Your task to perform on an android device: Is it going to rain tomorrow? Image 0: 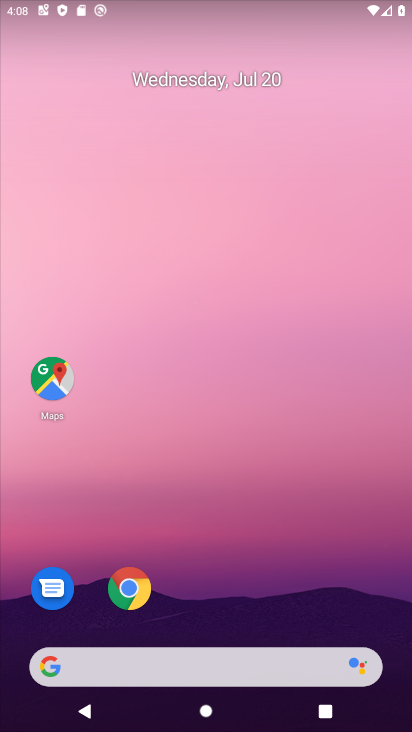
Step 0: drag from (204, 596) to (224, 14)
Your task to perform on an android device: Is it going to rain tomorrow? Image 1: 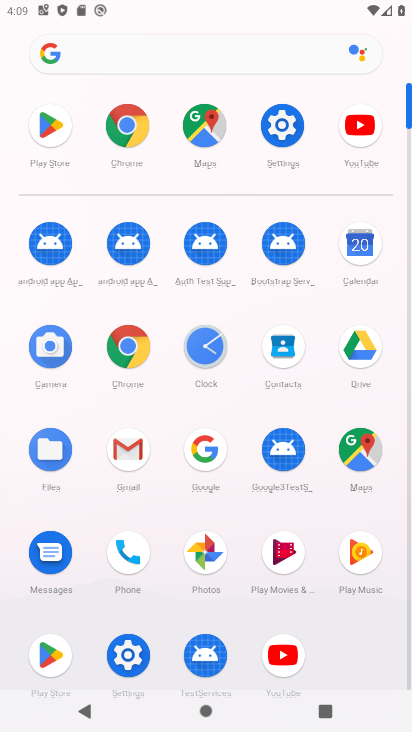
Step 1: click (123, 122)
Your task to perform on an android device: Is it going to rain tomorrow? Image 2: 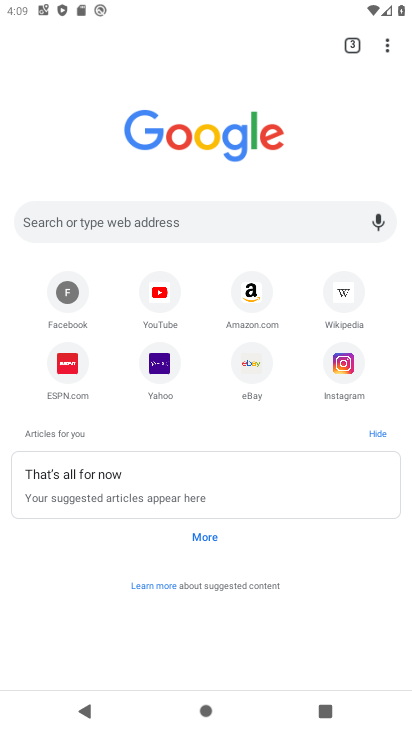
Step 2: click (158, 217)
Your task to perform on an android device: Is it going to rain tomorrow? Image 3: 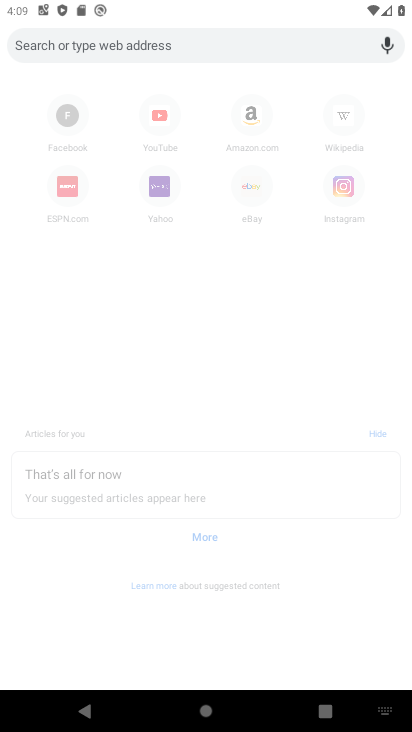
Step 3: type "weather"
Your task to perform on an android device: Is it going to rain tomorrow? Image 4: 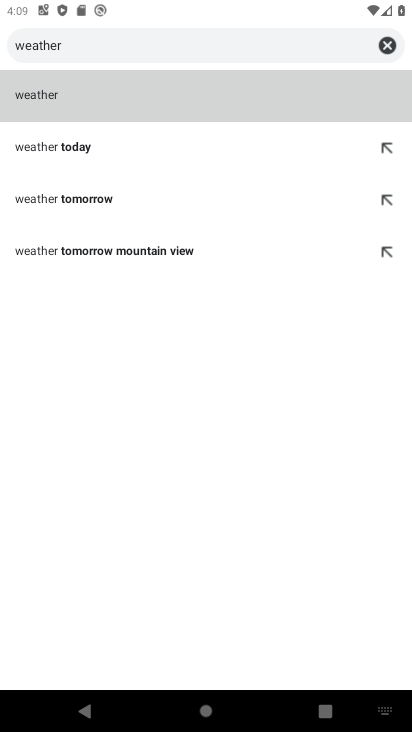
Step 4: click (30, 93)
Your task to perform on an android device: Is it going to rain tomorrow? Image 5: 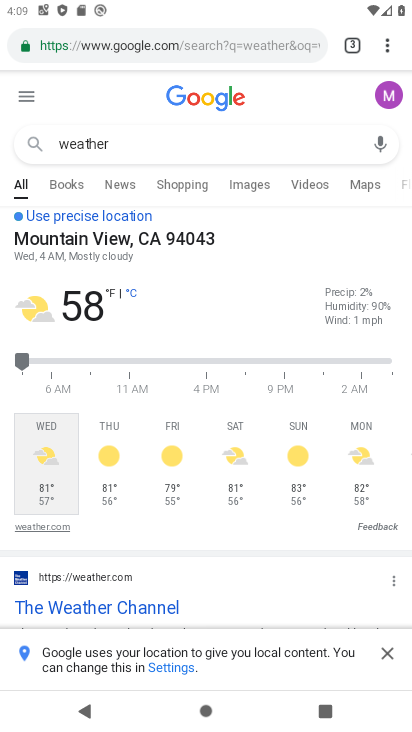
Step 5: click (100, 458)
Your task to perform on an android device: Is it going to rain tomorrow? Image 6: 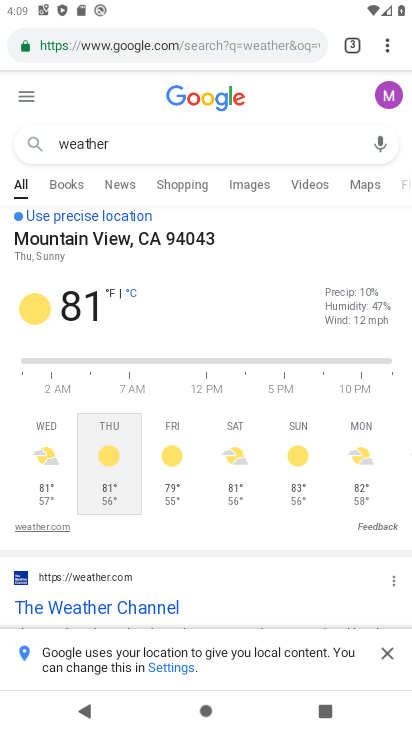
Step 6: task complete